Your task to perform on an android device: Go to Amazon Image 0: 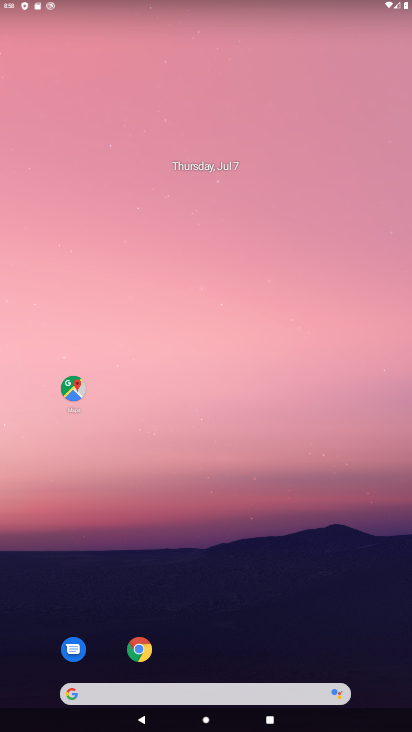
Step 0: drag from (227, 616) to (277, 149)
Your task to perform on an android device: Go to Amazon Image 1: 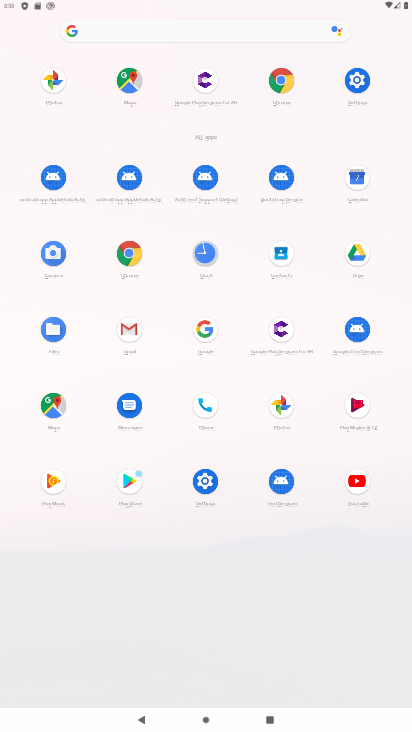
Step 1: press home button
Your task to perform on an android device: Go to Amazon Image 2: 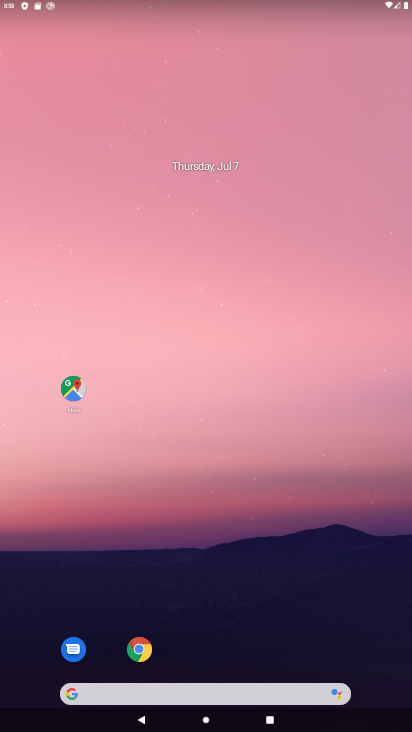
Step 2: click (182, 695)
Your task to perform on an android device: Go to Amazon Image 3: 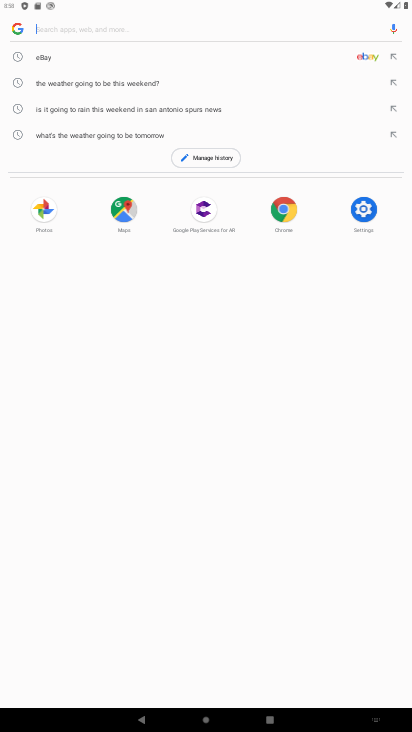
Step 3: type "amazon"
Your task to perform on an android device: Go to Amazon Image 4: 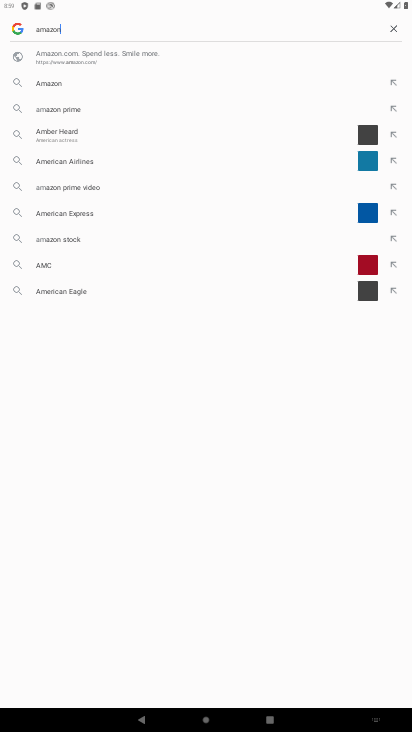
Step 4: press enter
Your task to perform on an android device: Go to Amazon Image 5: 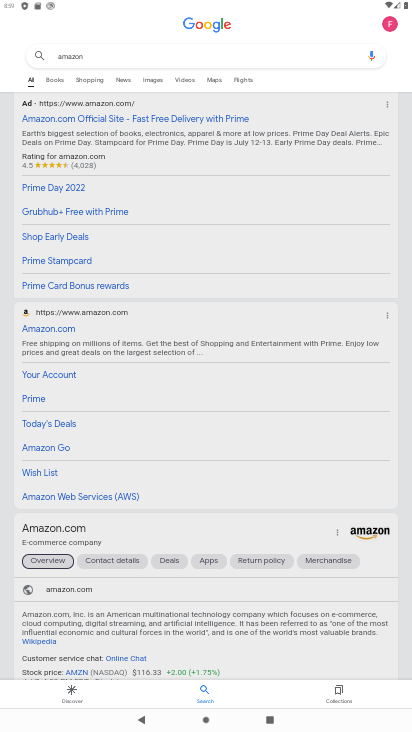
Step 5: drag from (214, 411) to (201, 639)
Your task to perform on an android device: Go to Amazon Image 6: 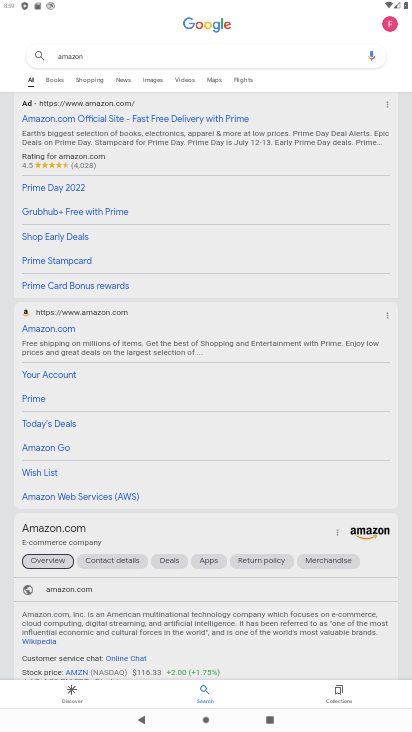
Step 6: drag from (205, 603) to (259, 322)
Your task to perform on an android device: Go to Amazon Image 7: 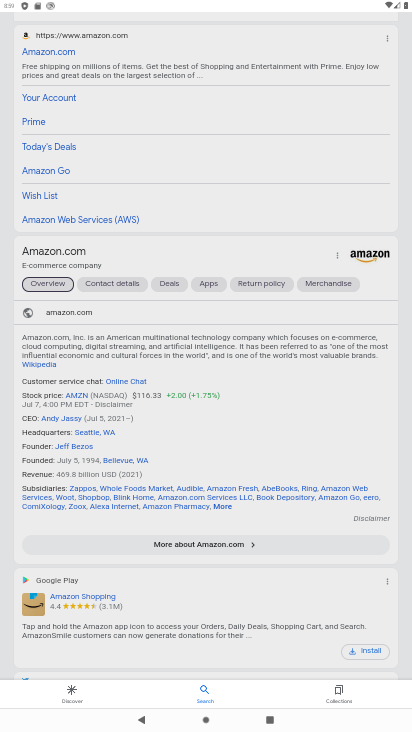
Step 7: drag from (133, 560) to (159, 313)
Your task to perform on an android device: Go to Amazon Image 8: 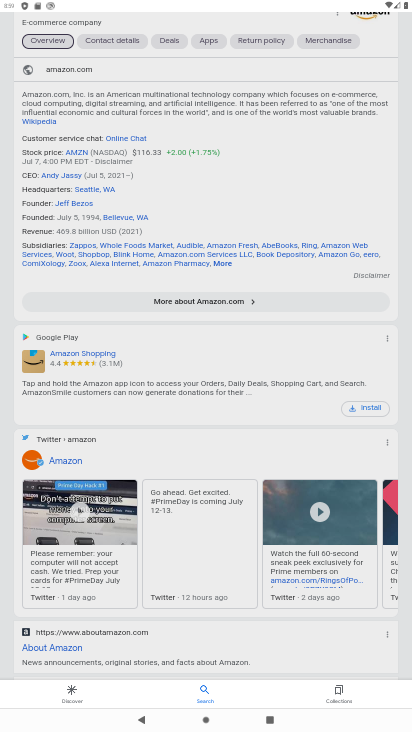
Step 8: click (134, 498)
Your task to perform on an android device: Go to Amazon Image 9: 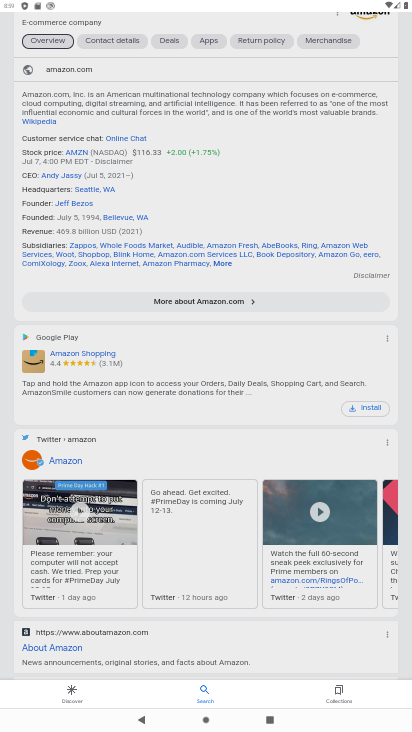
Step 9: drag from (134, 498) to (151, 416)
Your task to perform on an android device: Go to Amazon Image 10: 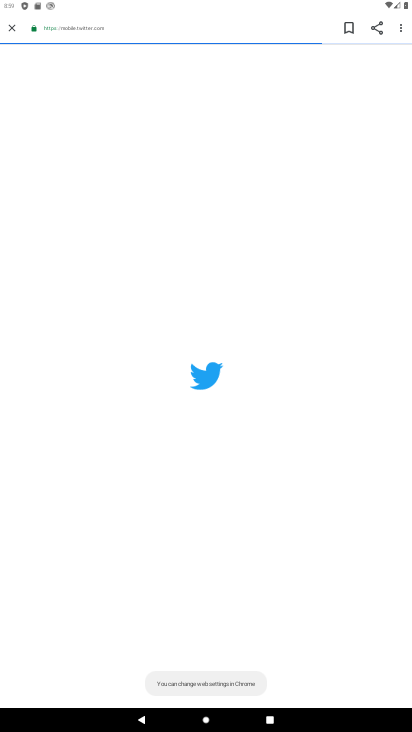
Step 10: click (8, 25)
Your task to perform on an android device: Go to Amazon Image 11: 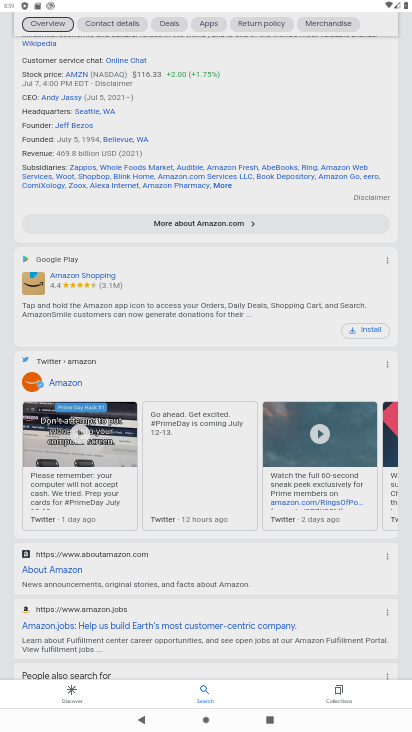
Step 11: click (55, 570)
Your task to perform on an android device: Go to Amazon Image 12: 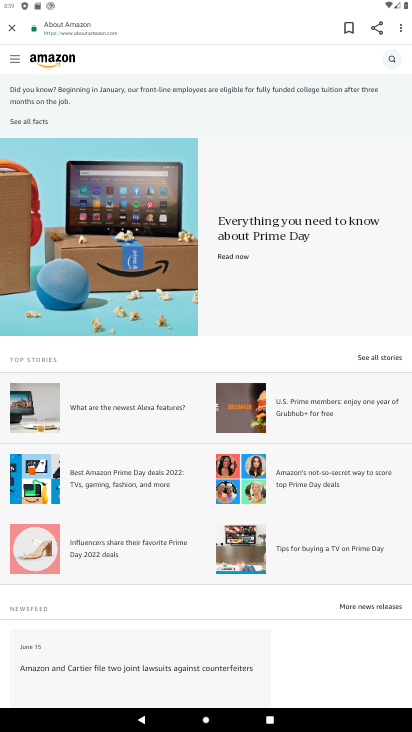
Step 12: task complete